Your task to perform on an android device: Open the map Image 0: 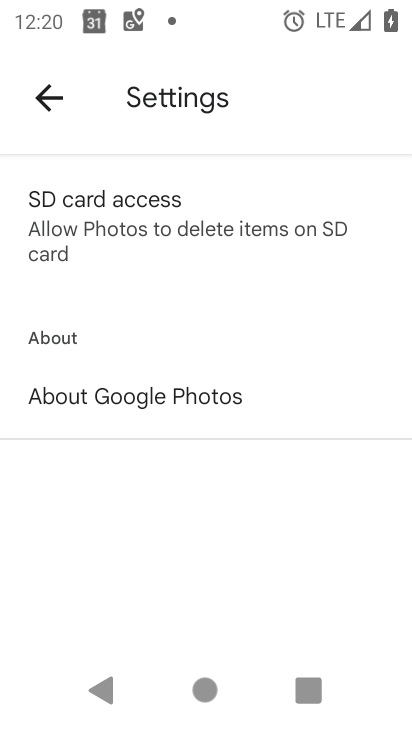
Step 0: press home button
Your task to perform on an android device: Open the map Image 1: 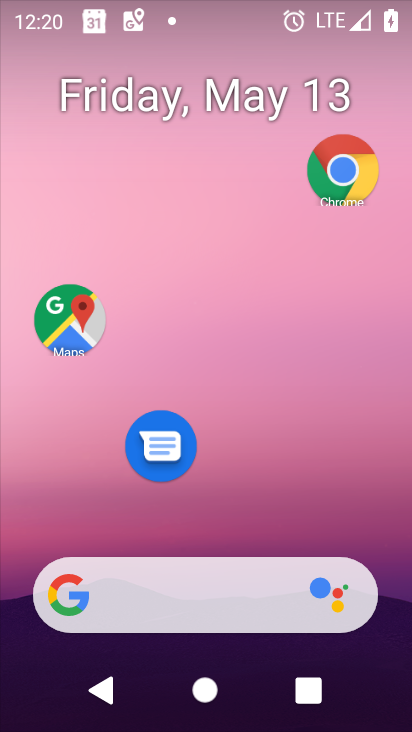
Step 1: drag from (259, 574) to (309, 41)
Your task to perform on an android device: Open the map Image 2: 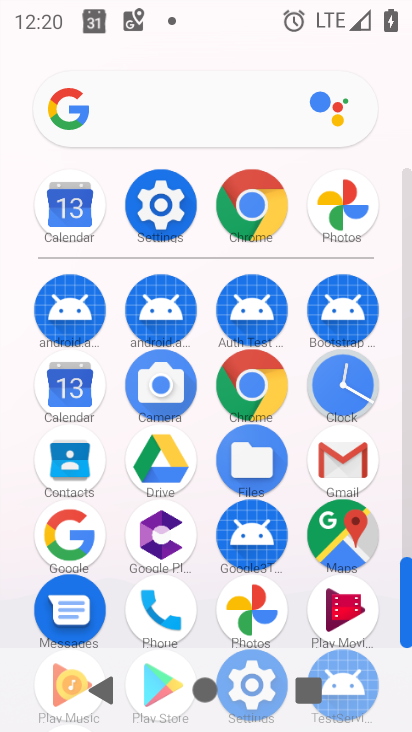
Step 2: click (358, 531)
Your task to perform on an android device: Open the map Image 3: 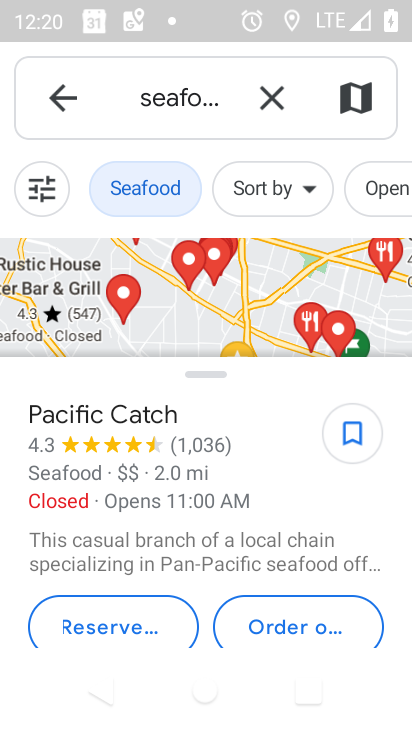
Step 3: task complete